Your task to perform on an android device: Search for logitech g502 on costco, select the first entry, add it to the cart, then select checkout. Image 0: 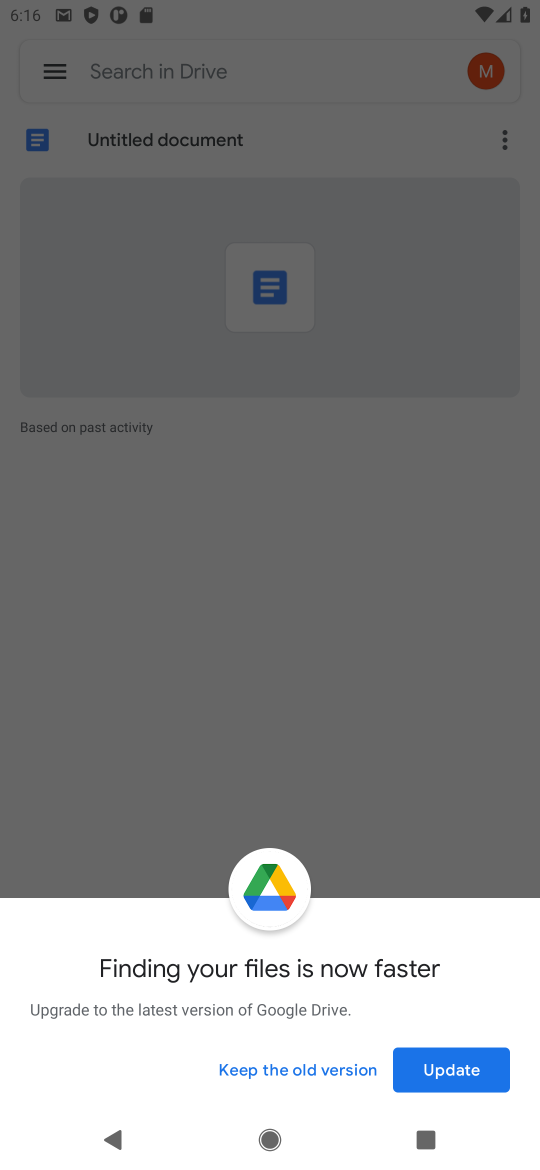
Step 0: press home button
Your task to perform on an android device: Search for logitech g502 on costco, select the first entry, add it to the cart, then select checkout. Image 1: 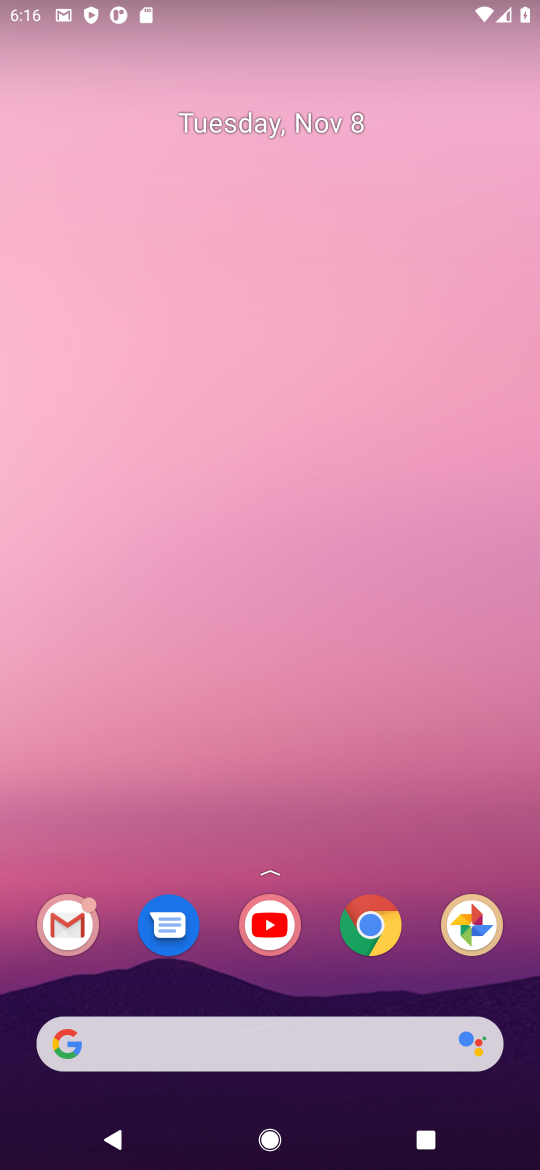
Step 1: click (369, 931)
Your task to perform on an android device: Search for logitech g502 on costco, select the first entry, add it to the cart, then select checkout. Image 2: 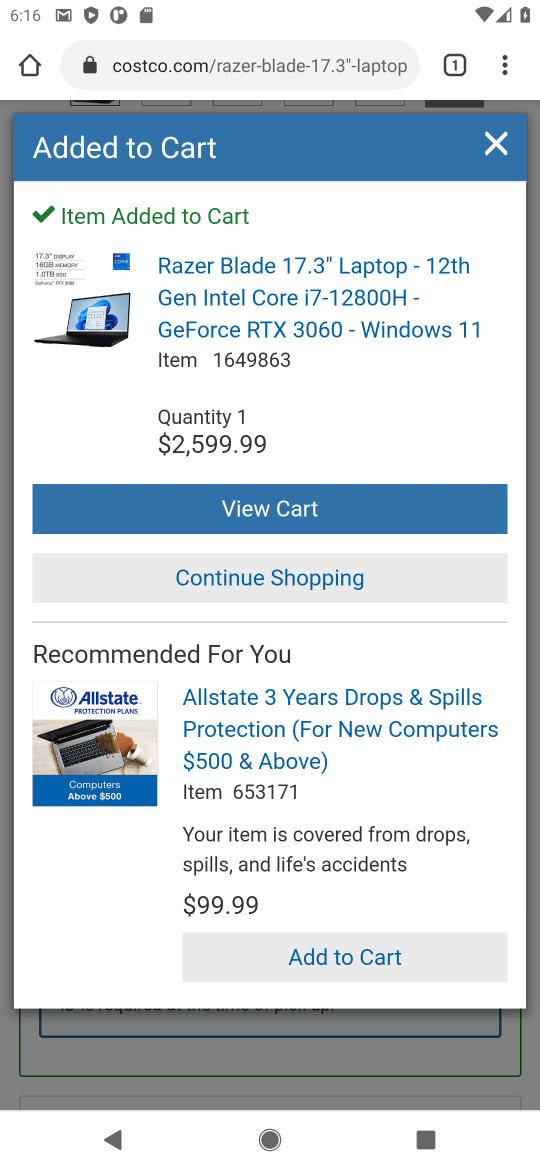
Step 2: click (495, 148)
Your task to perform on an android device: Search for logitech g502 on costco, select the first entry, add it to the cart, then select checkout. Image 3: 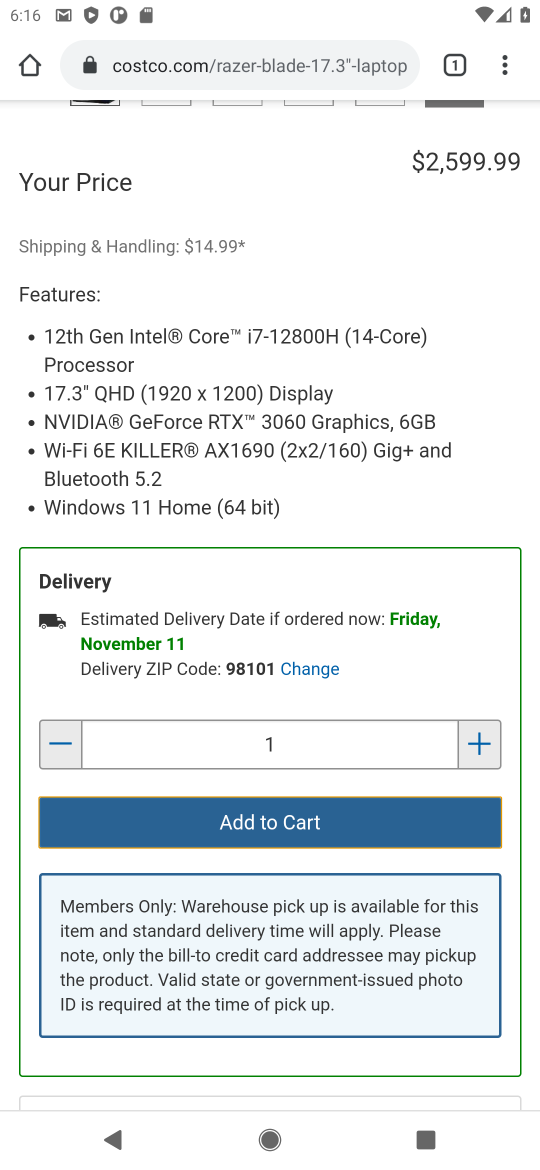
Step 3: drag from (328, 285) to (299, 924)
Your task to perform on an android device: Search for logitech g502 on costco, select the first entry, add it to the cart, then select checkout. Image 4: 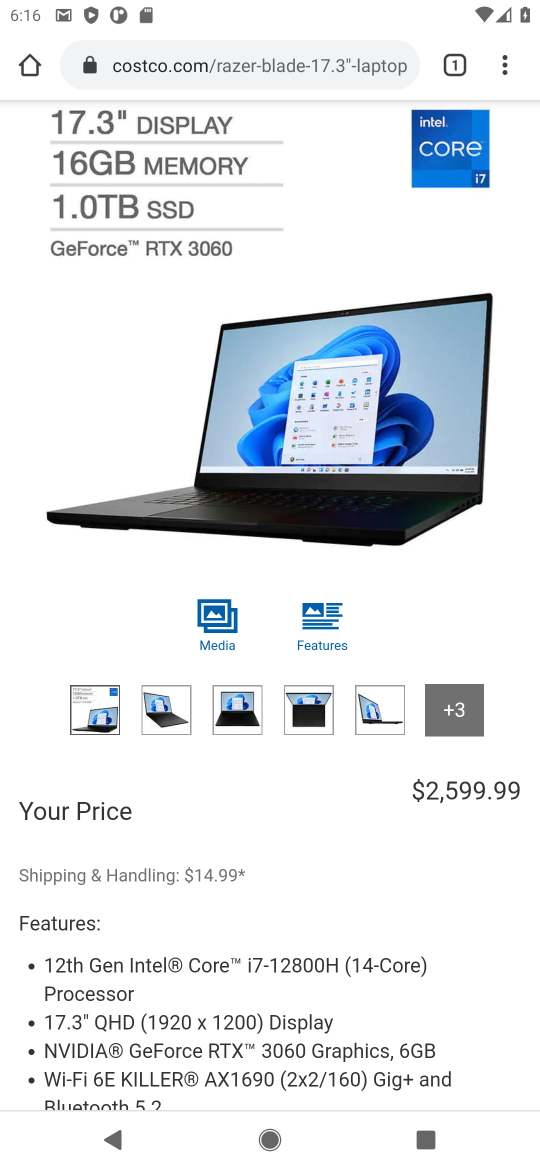
Step 4: drag from (284, 264) to (260, 838)
Your task to perform on an android device: Search for logitech g502 on costco, select the first entry, add it to the cart, then select checkout. Image 5: 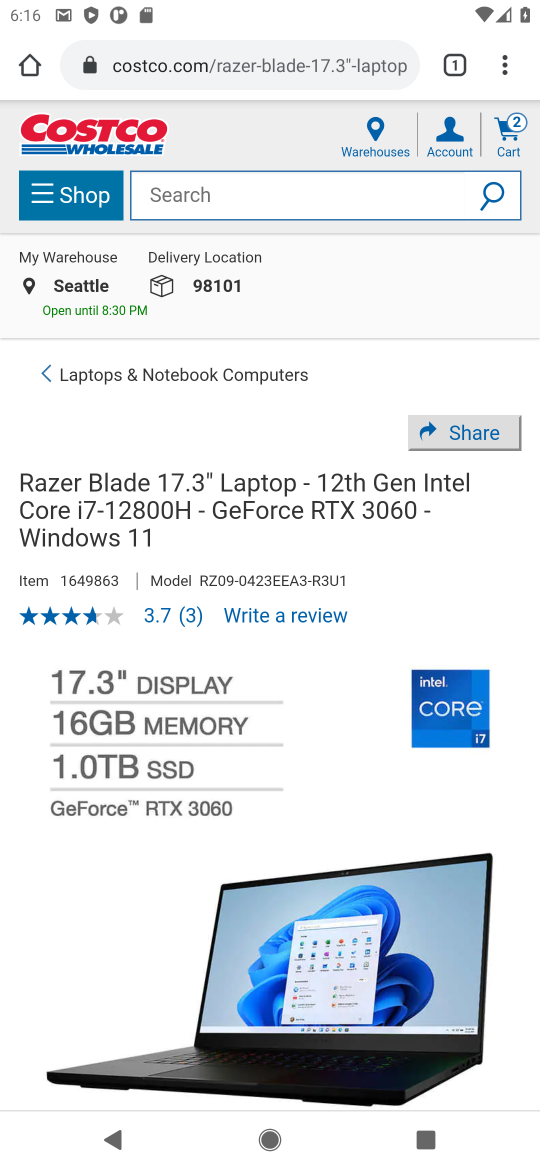
Step 5: click (335, 194)
Your task to perform on an android device: Search for logitech g502 on costco, select the first entry, add it to the cart, then select checkout. Image 6: 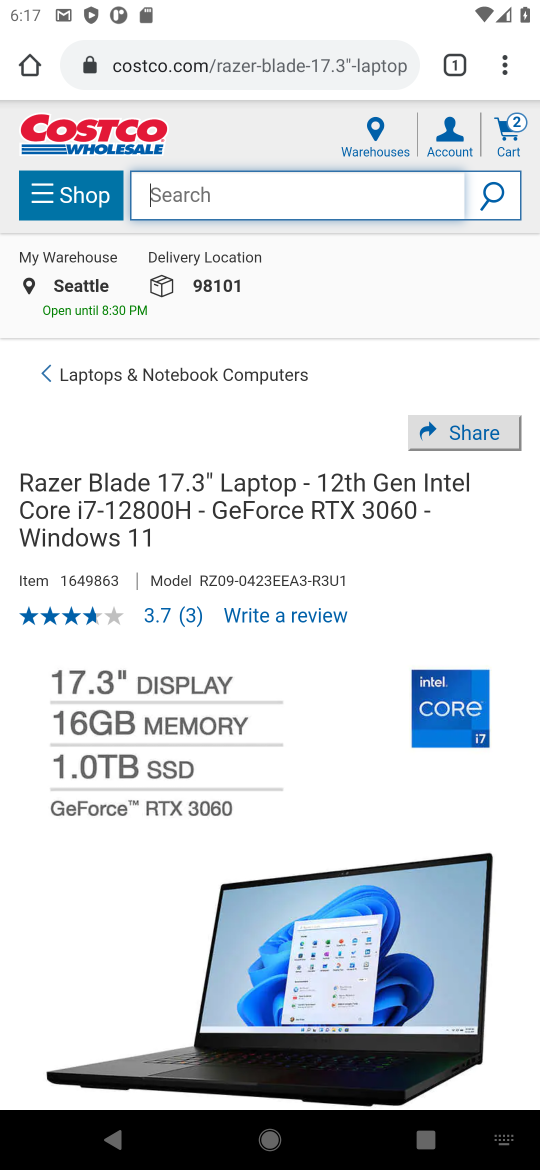
Step 6: type "logitech g502"
Your task to perform on an android device: Search for logitech g502 on costco, select the first entry, add it to the cart, then select checkout. Image 7: 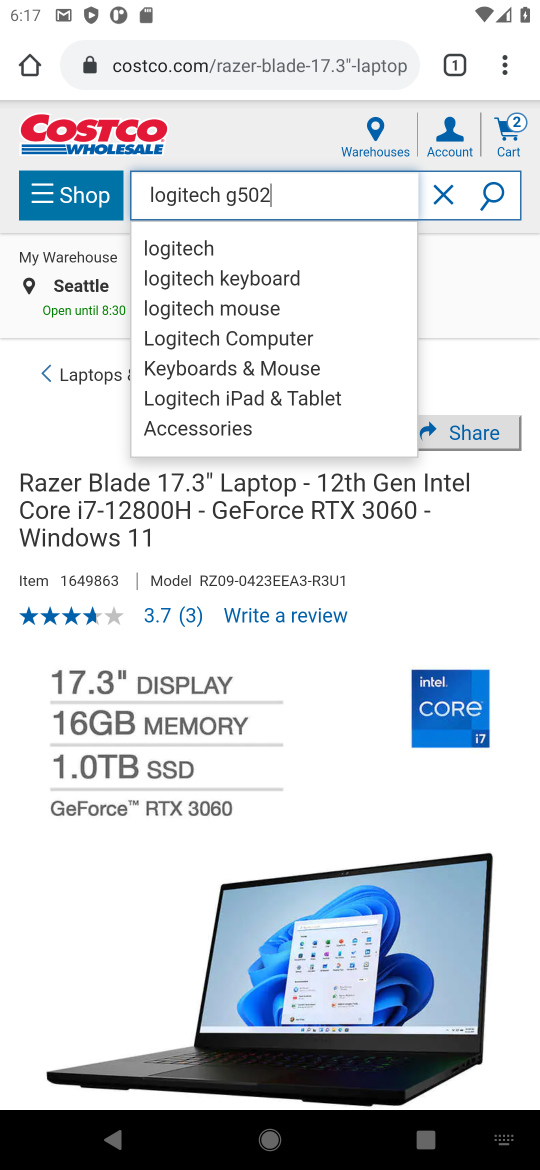
Step 7: press enter
Your task to perform on an android device: Search for logitech g502 on costco, select the first entry, add it to the cart, then select checkout. Image 8: 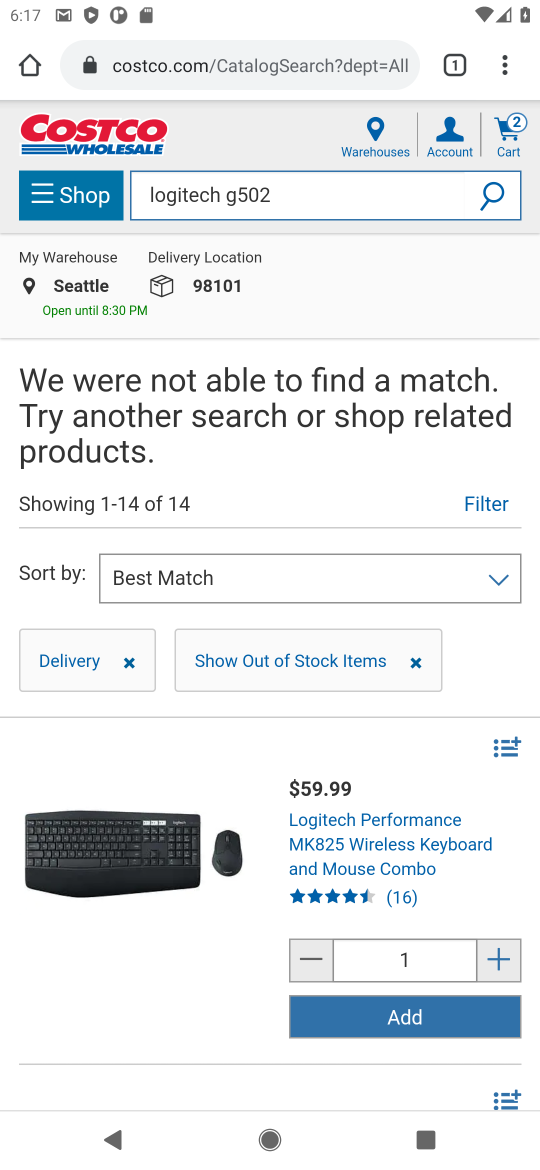
Step 8: drag from (311, 734) to (288, 252)
Your task to perform on an android device: Search for logitech g502 on costco, select the first entry, add it to the cart, then select checkout. Image 9: 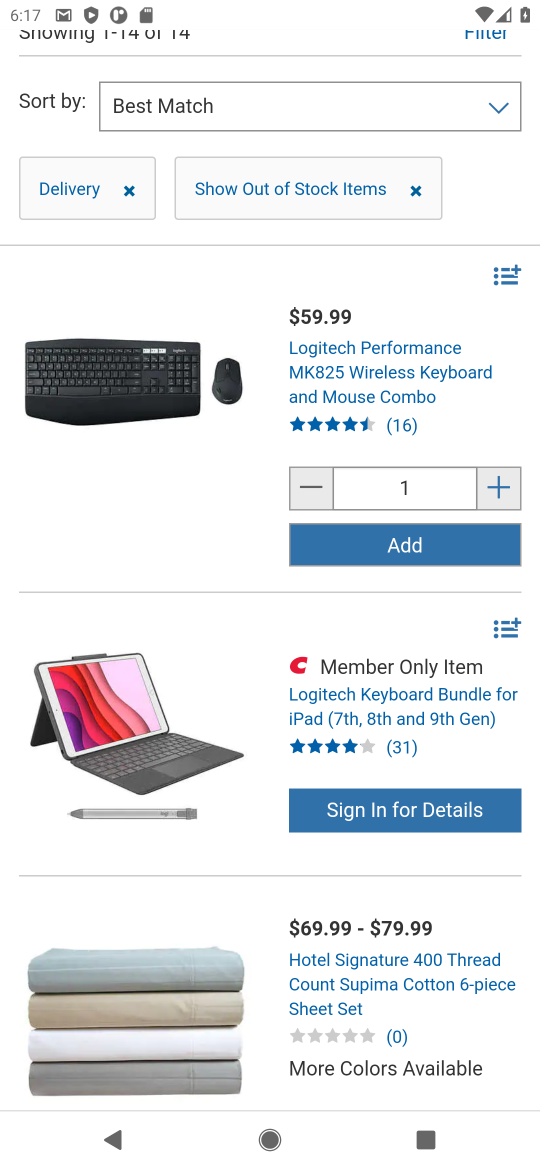
Step 9: click (189, 358)
Your task to perform on an android device: Search for logitech g502 on costco, select the first entry, add it to the cart, then select checkout. Image 10: 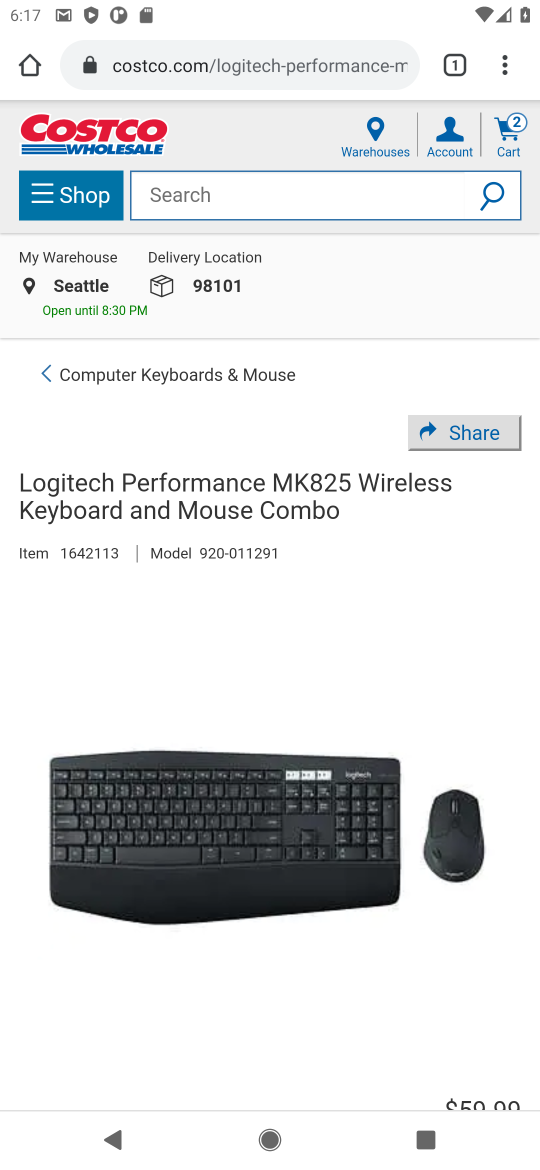
Step 10: drag from (464, 657) to (412, 48)
Your task to perform on an android device: Search for logitech g502 on costco, select the first entry, add it to the cart, then select checkout. Image 11: 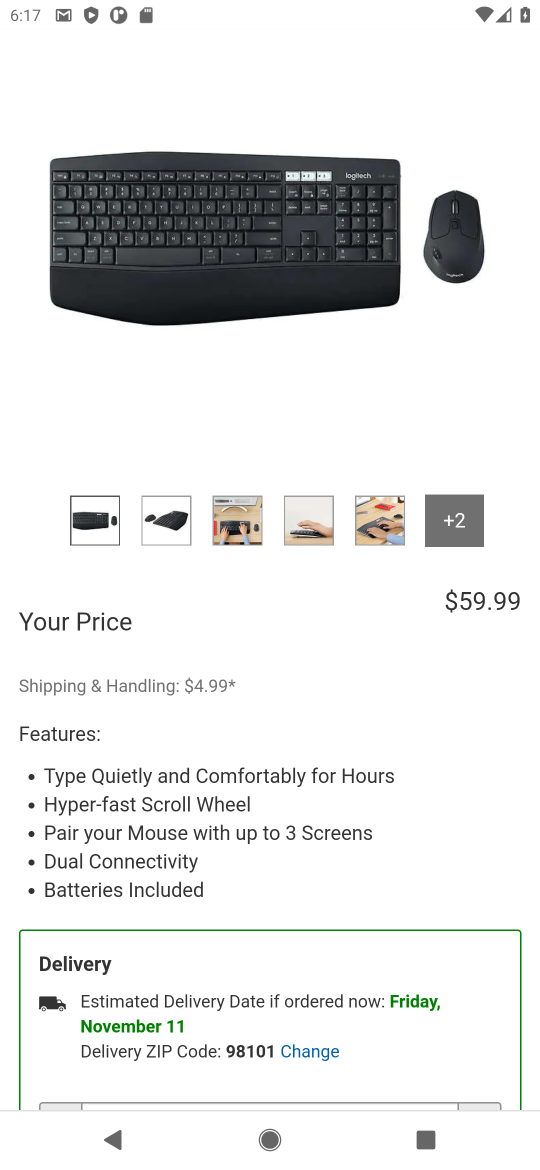
Step 11: drag from (425, 955) to (415, 620)
Your task to perform on an android device: Search for logitech g502 on costco, select the first entry, add it to the cart, then select checkout. Image 12: 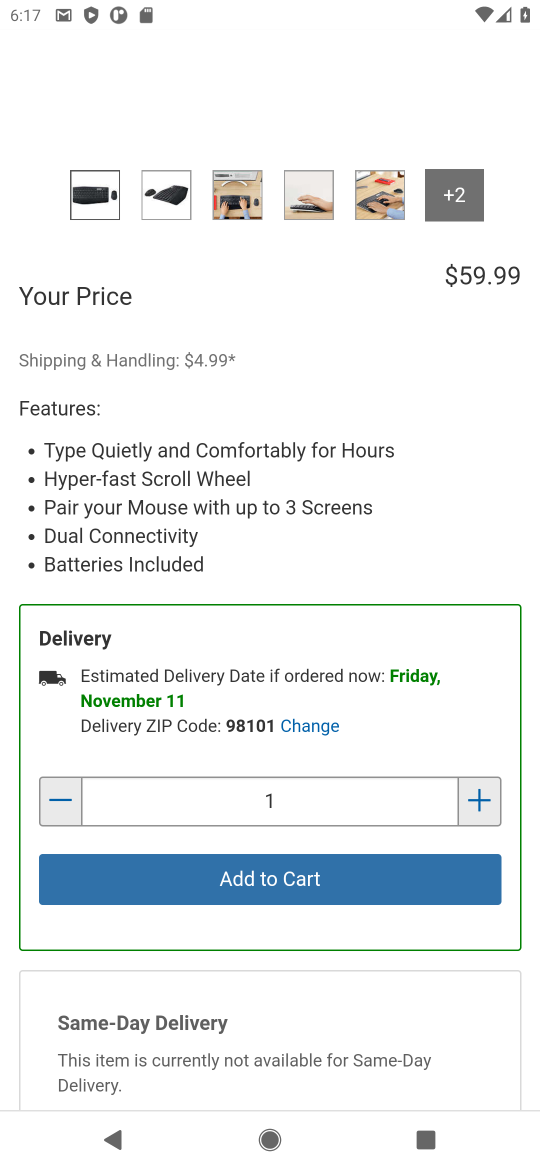
Step 12: click (274, 884)
Your task to perform on an android device: Search for logitech g502 on costco, select the first entry, add it to the cart, then select checkout. Image 13: 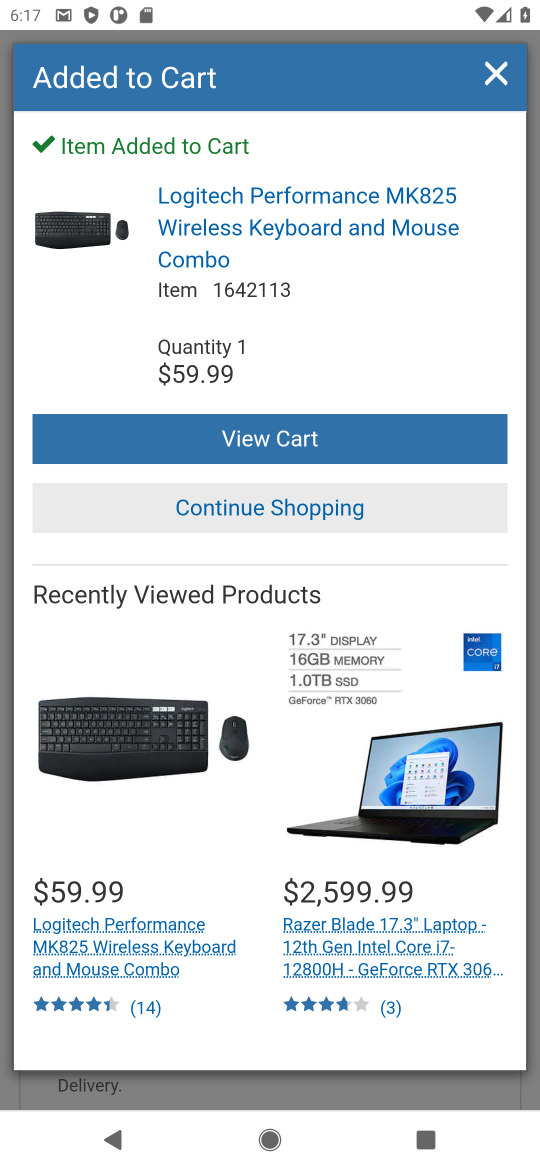
Step 13: click (308, 449)
Your task to perform on an android device: Search for logitech g502 on costco, select the first entry, add it to the cart, then select checkout. Image 14: 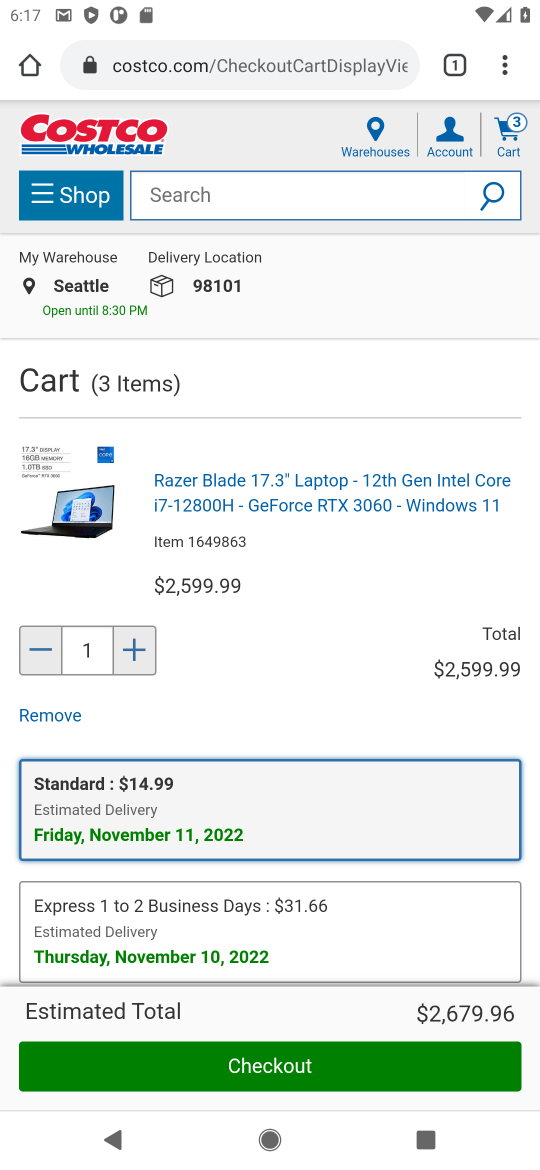
Step 14: click (388, 1075)
Your task to perform on an android device: Search for logitech g502 on costco, select the first entry, add it to the cart, then select checkout. Image 15: 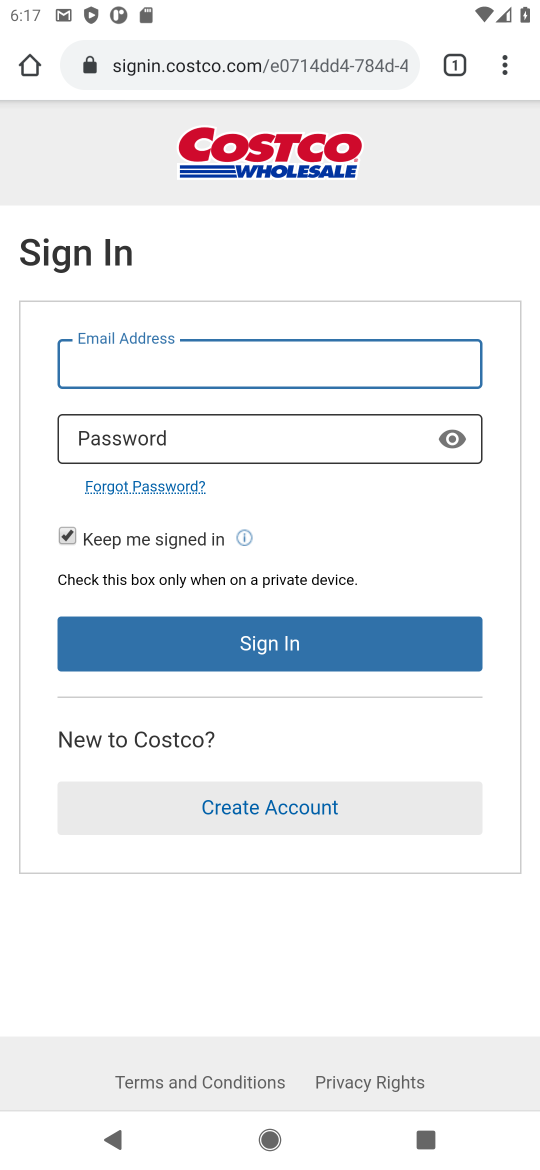
Step 15: task complete